Your task to perform on an android device: turn on priority inbox in the gmail app Image 0: 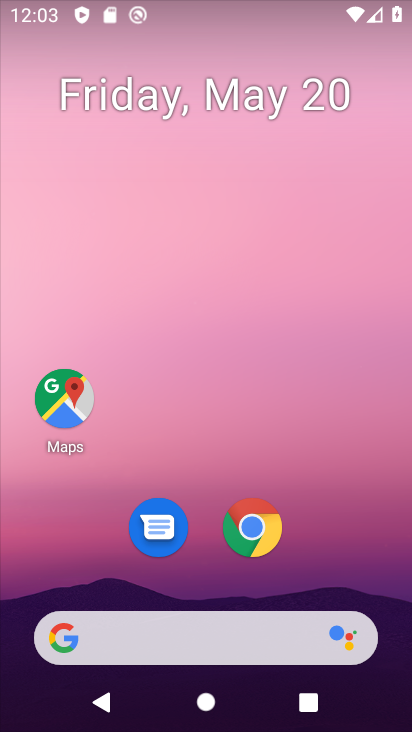
Step 0: press home button
Your task to perform on an android device: turn on priority inbox in the gmail app Image 1: 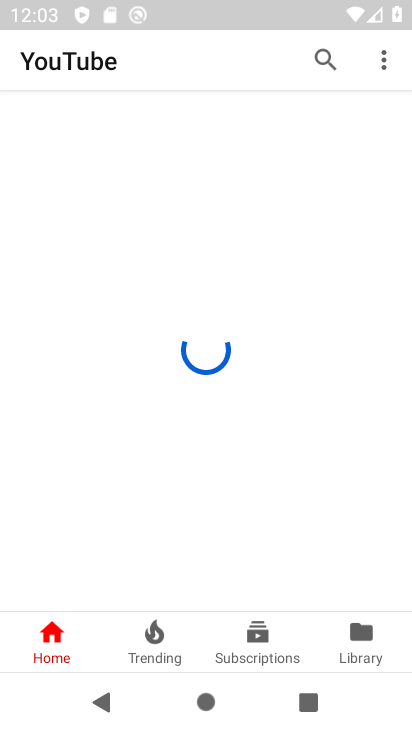
Step 1: click (398, 0)
Your task to perform on an android device: turn on priority inbox in the gmail app Image 2: 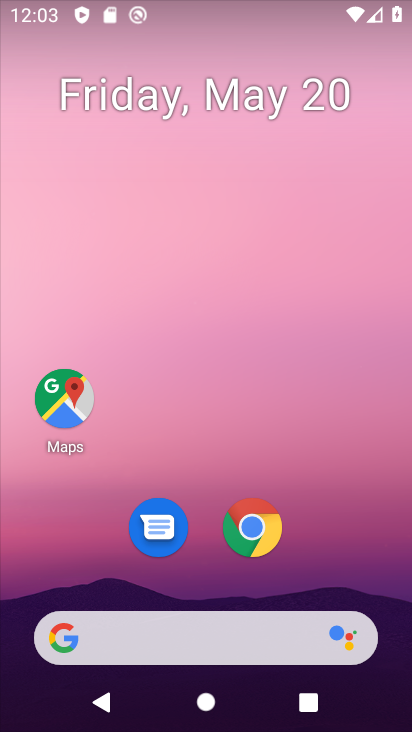
Step 2: drag from (343, 534) to (306, 10)
Your task to perform on an android device: turn on priority inbox in the gmail app Image 3: 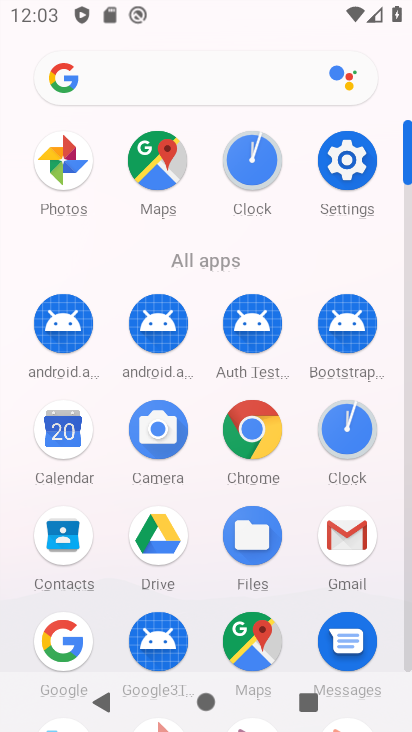
Step 3: click (365, 556)
Your task to perform on an android device: turn on priority inbox in the gmail app Image 4: 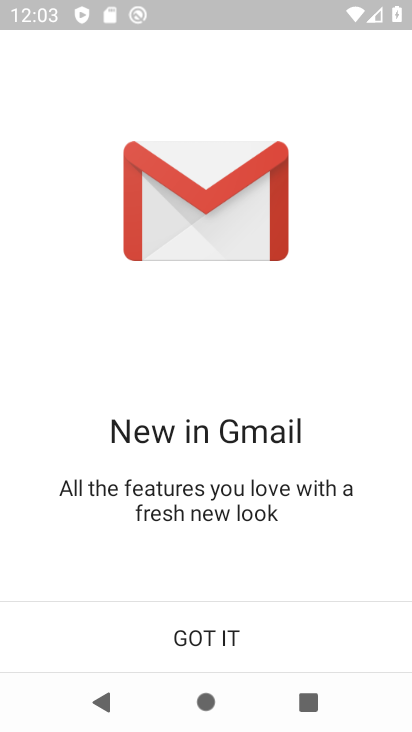
Step 4: click (251, 620)
Your task to perform on an android device: turn on priority inbox in the gmail app Image 5: 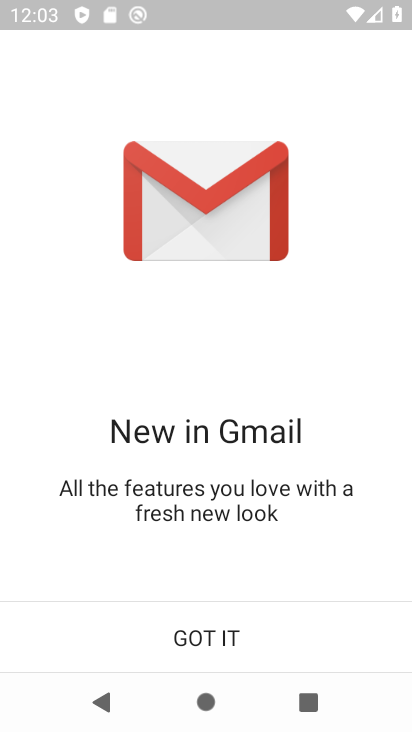
Step 5: click (251, 620)
Your task to perform on an android device: turn on priority inbox in the gmail app Image 6: 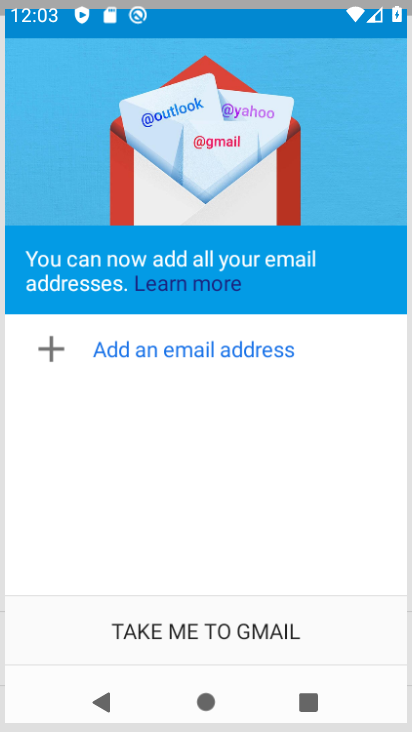
Step 6: click (251, 620)
Your task to perform on an android device: turn on priority inbox in the gmail app Image 7: 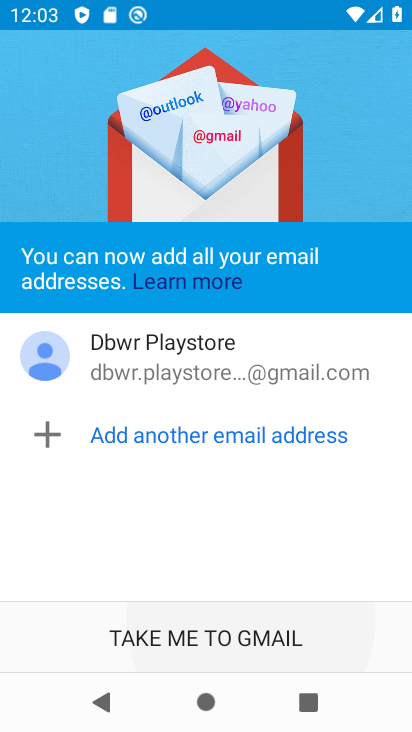
Step 7: click (251, 620)
Your task to perform on an android device: turn on priority inbox in the gmail app Image 8: 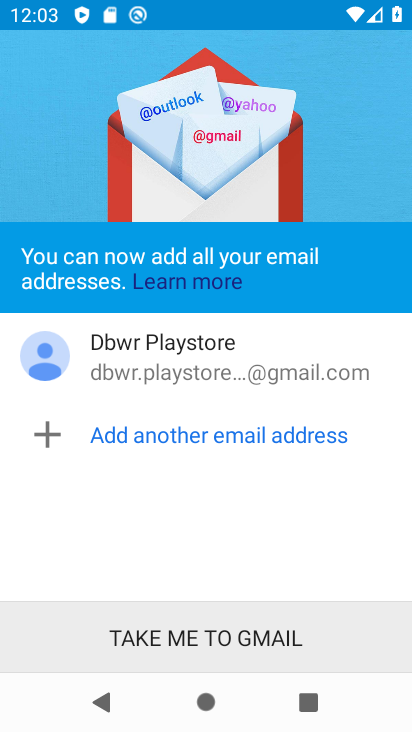
Step 8: click (251, 618)
Your task to perform on an android device: turn on priority inbox in the gmail app Image 9: 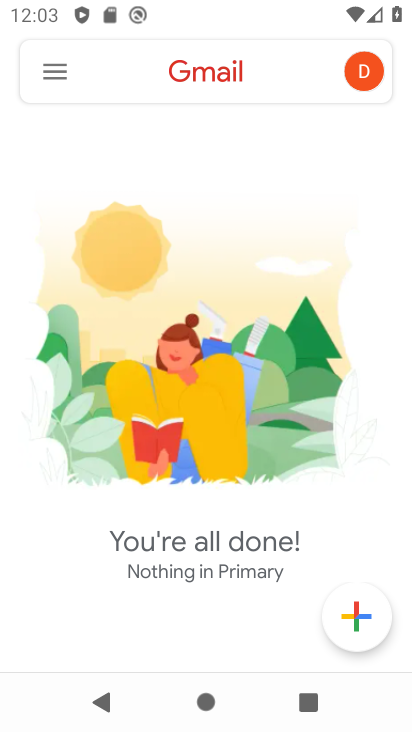
Step 9: click (46, 76)
Your task to perform on an android device: turn on priority inbox in the gmail app Image 10: 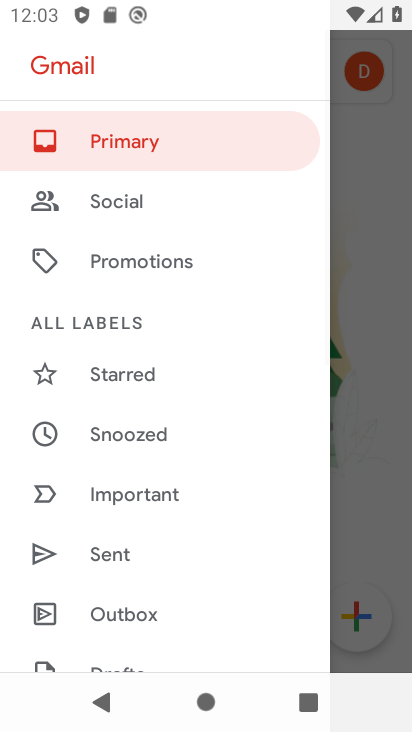
Step 10: drag from (138, 506) to (162, 64)
Your task to perform on an android device: turn on priority inbox in the gmail app Image 11: 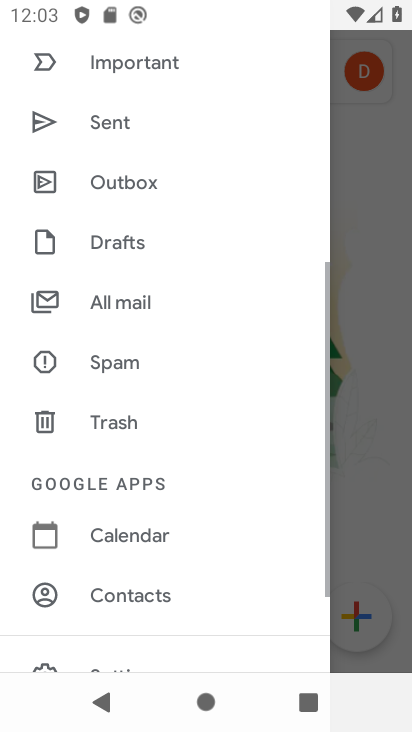
Step 11: drag from (132, 556) to (141, 186)
Your task to perform on an android device: turn on priority inbox in the gmail app Image 12: 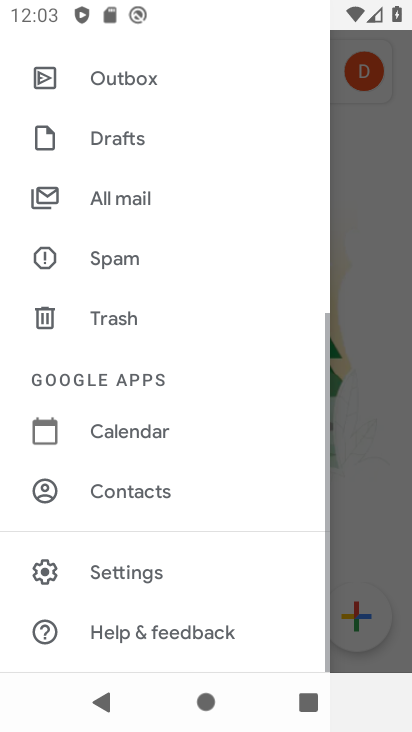
Step 12: click (128, 568)
Your task to perform on an android device: turn on priority inbox in the gmail app Image 13: 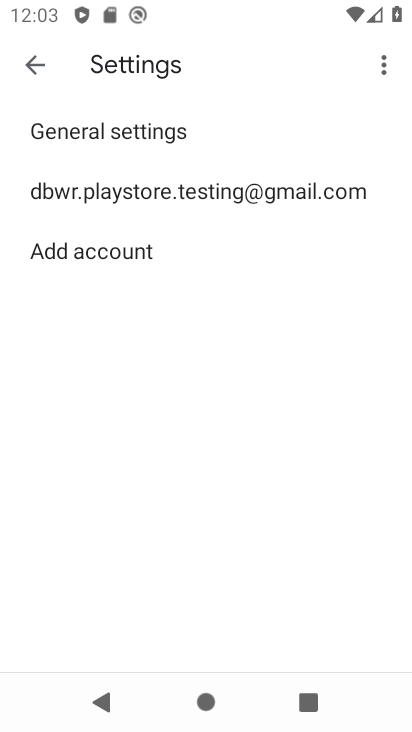
Step 13: click (193, 189)
Your task to perform on an android device: turn on priority inbox in the gmail app Image 14: 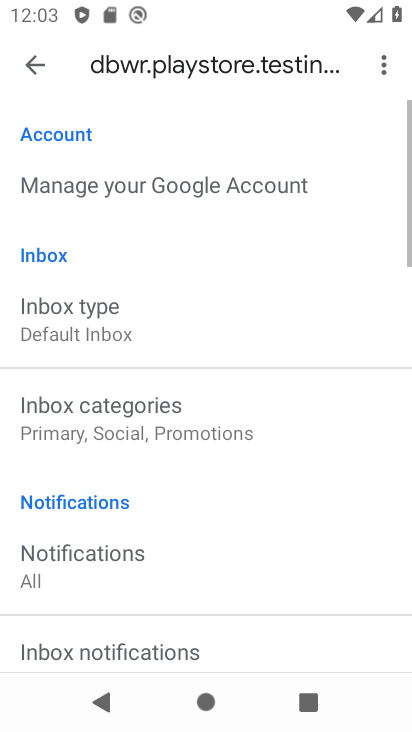
Step 14: click (114, 317)
Your task to perform on an android device: turn on priority inbox in the gmail app Image 15: 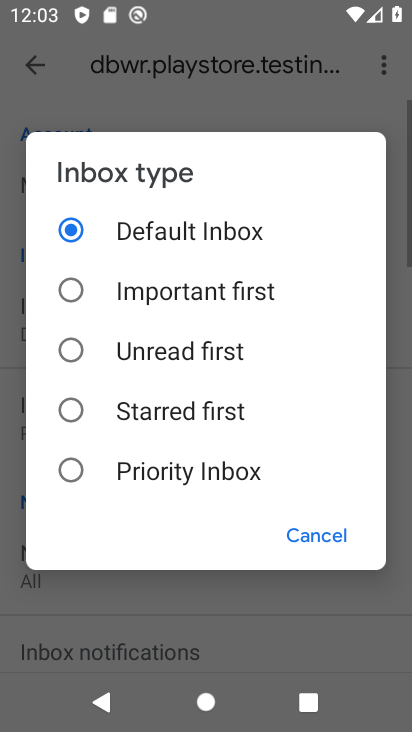
Step 15: click (93, 479)
Your task to perform on an android device: turn on priority inbox in the gmail app Image 16: 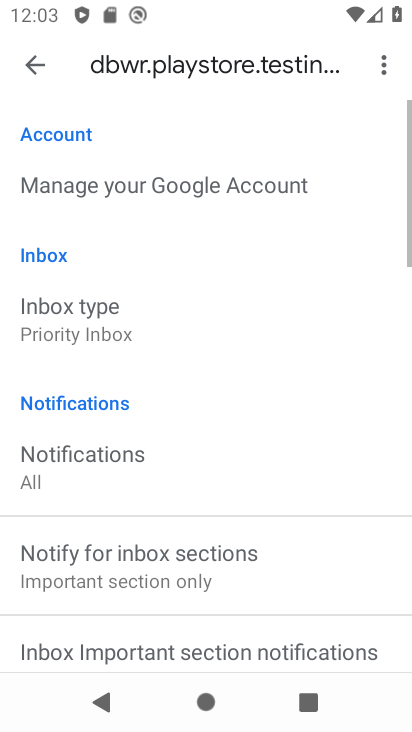
Step 16: task complete